Your task to perform on an android device: Go to Android settings Image 0: 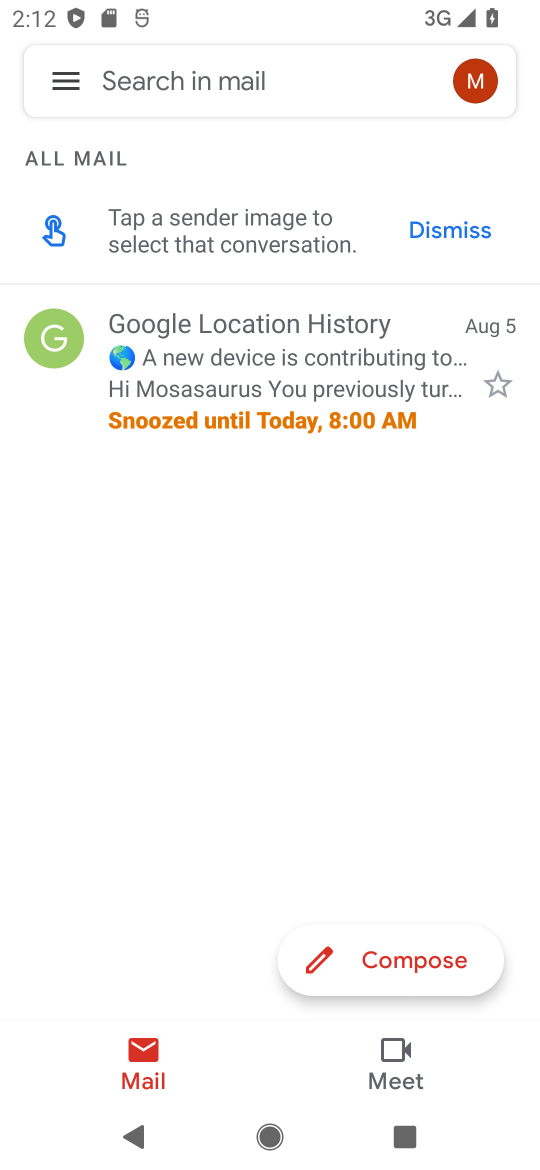
Step 0: press home button
Your task to perform on an android device: Go to Android settings Image 1: 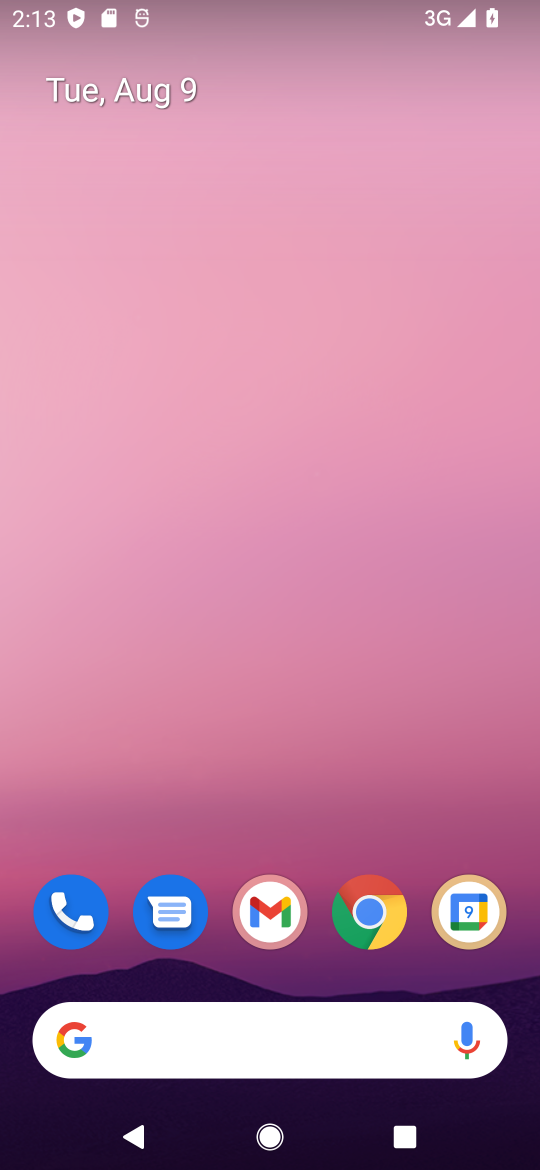
Step 1: drag from (265, 798) to (231, 62)
Your task to perform on an android device: Go to Android settings Image 2: 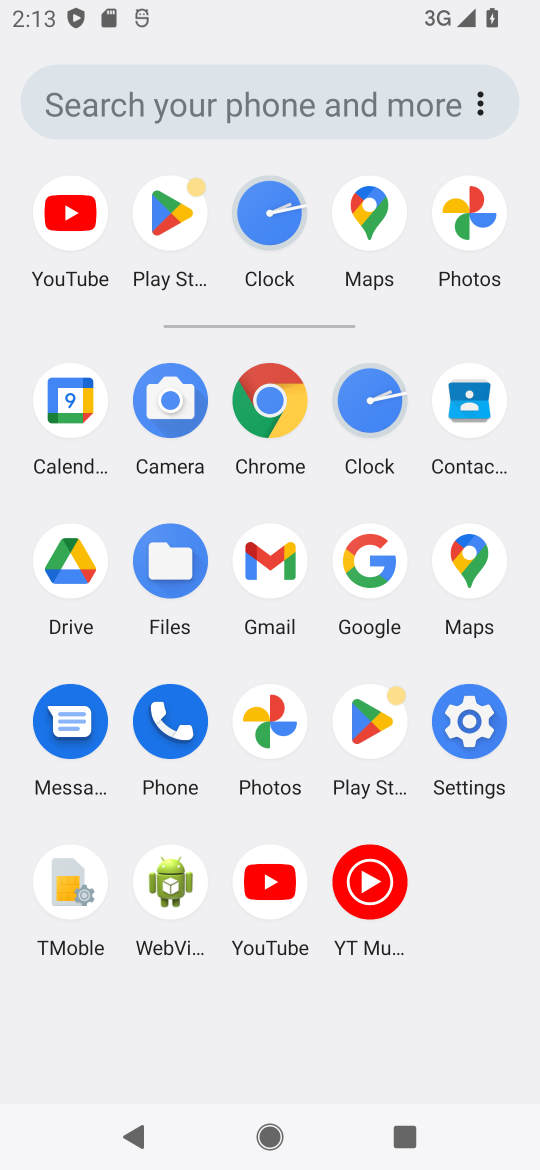
Step 2: click (475, 721)
Your task to perform on an android device: Go to Android settings Image 3: 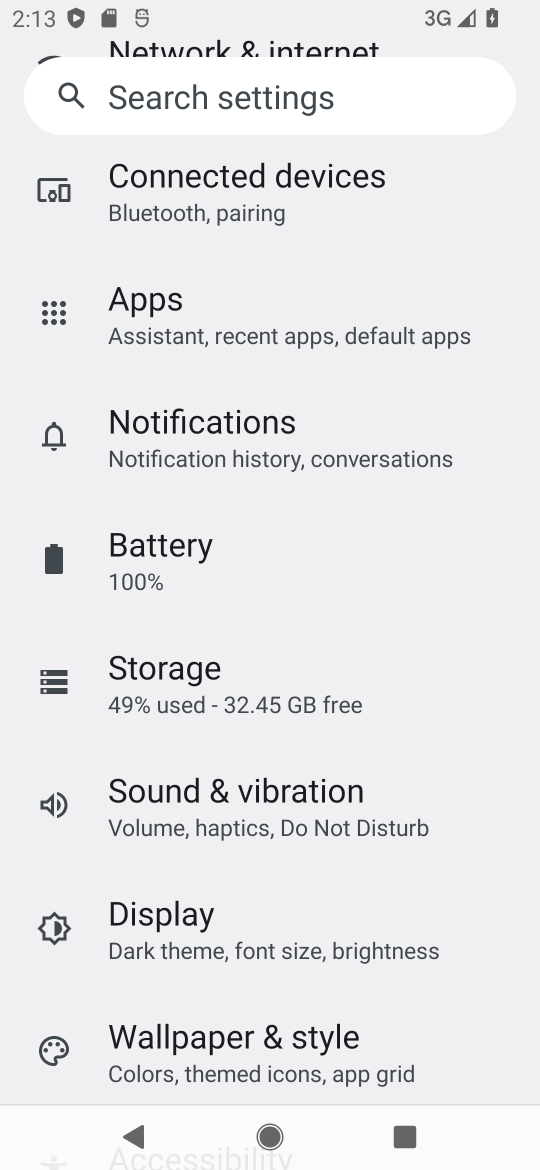
Step 3: task complete